Your task to perform on an android device: delete location history Image 0: 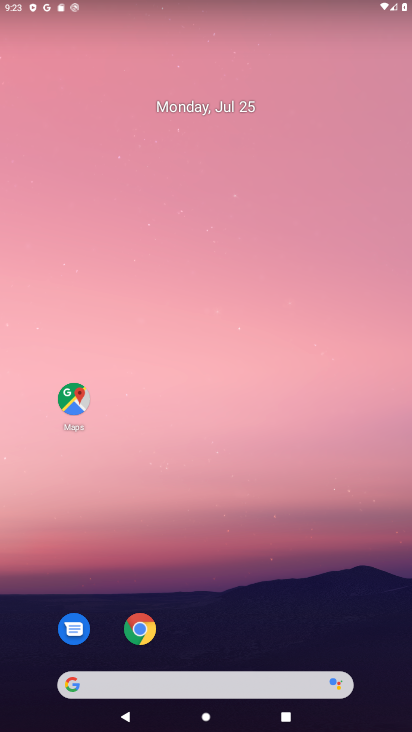
Step 0: click (72, 412)
Your task to perform on an android device: delete location history Image 1: 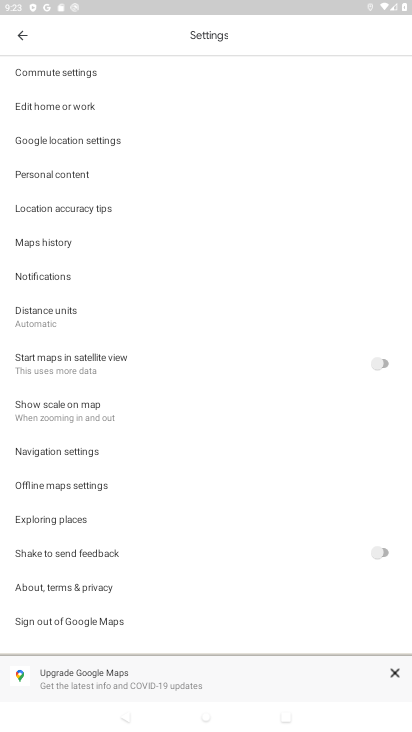
Step 1: click (21, 35)
Your task to perform on an android device: delete location history Image 2: 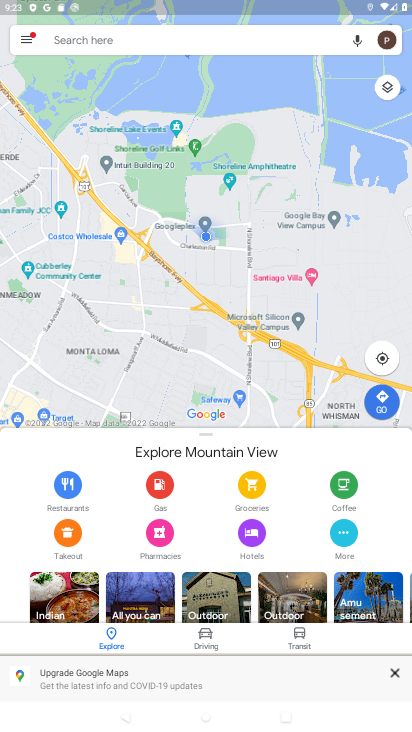
Step 2: click (30, 37)
Your task to perform on an android device: delete location history Image 3: 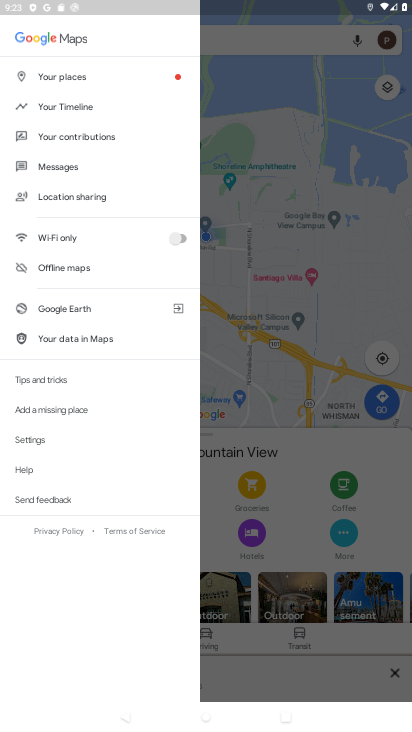
Step 3: click (83, 111)
Your task to perform on an android device: delete location history Image 4: 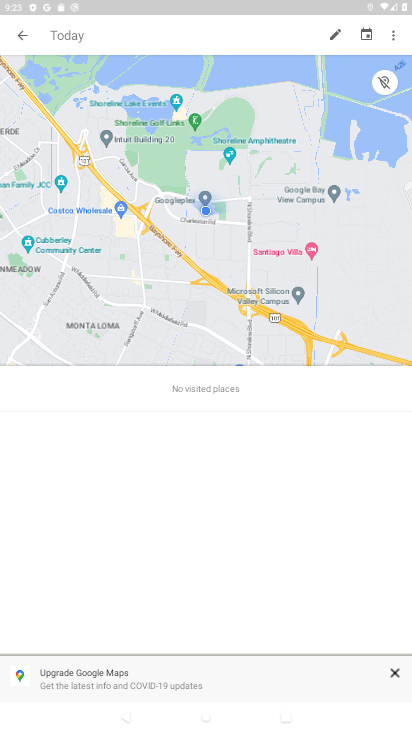
Step 4: click (401, 35)
Your task to perform on an android device: delete location history Image 5: 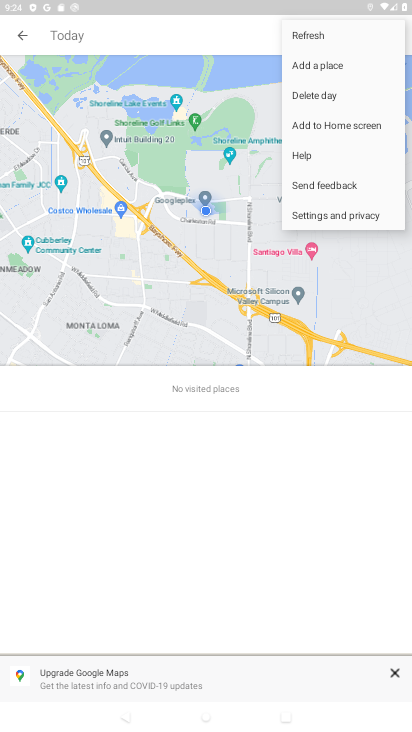
Step 5: click (310, 220)
Your task to perform on an android device: delete location history Image 6: 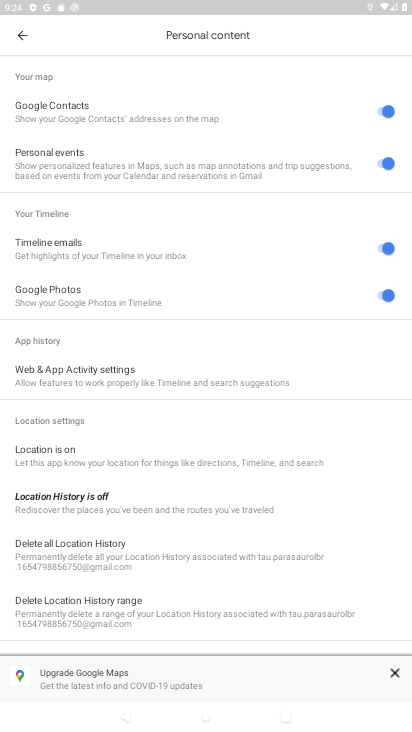
Step 6: click (133, 558)
Your task to perform on an android device: delete location history Image 7: 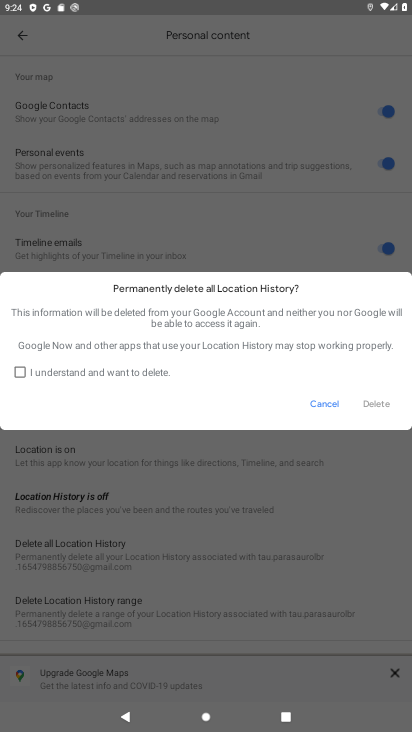
Step 7: click (22, 372)
Your task to perform on an android device: delete location history Image 8: 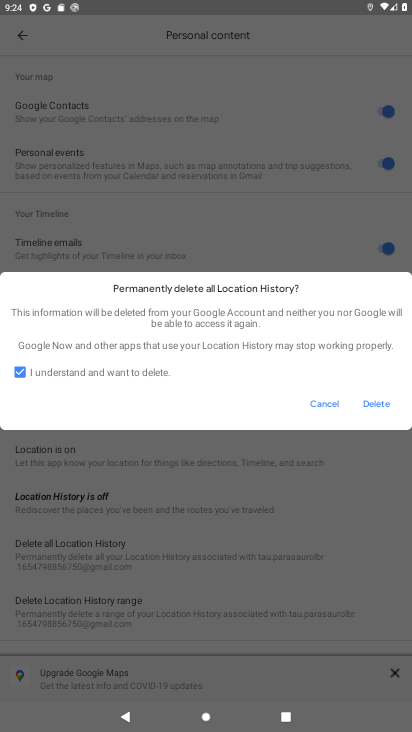
Step 8: click (382, 407)
Your task to perform on an android device: delete location history Image 9: 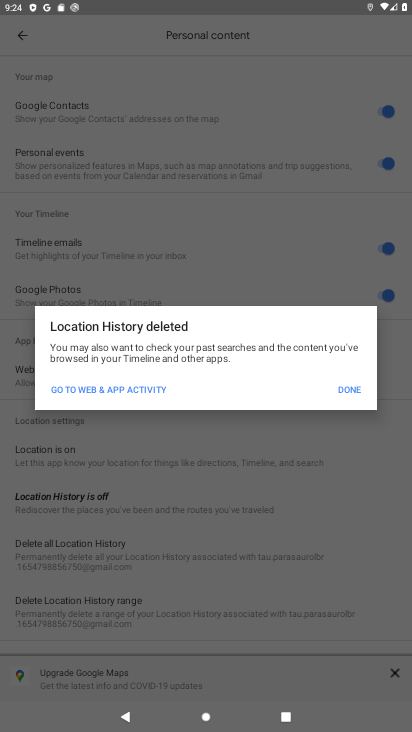
Step 9: task complete